Your task to perform on an android device: Set the phone to "Do not disturb". Image 0: 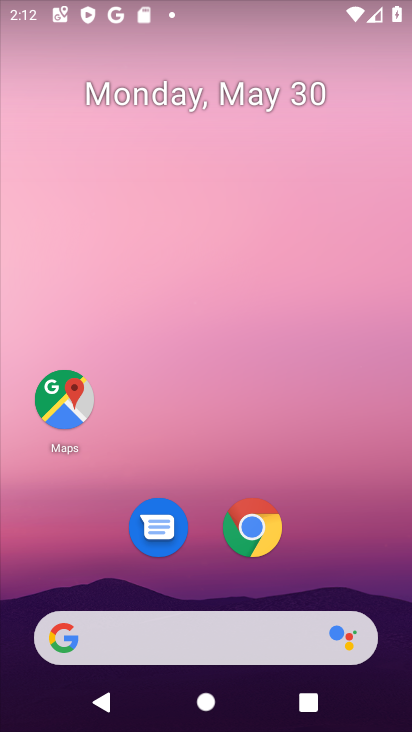
Step 0: drag from (248, 691) to (178, 58)
Your task to perform on an android device: Set the phone to "Do not disturb". Image 1: 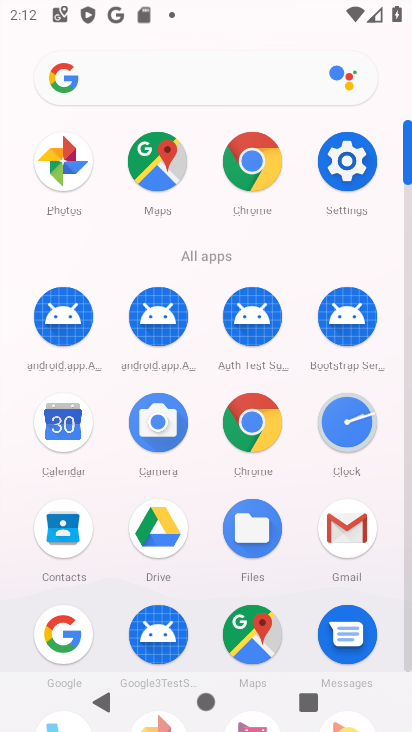
Step 1: click (345, 155)
Your task to perform on an android device: Set the phone to "Do not disturb". Image 2: 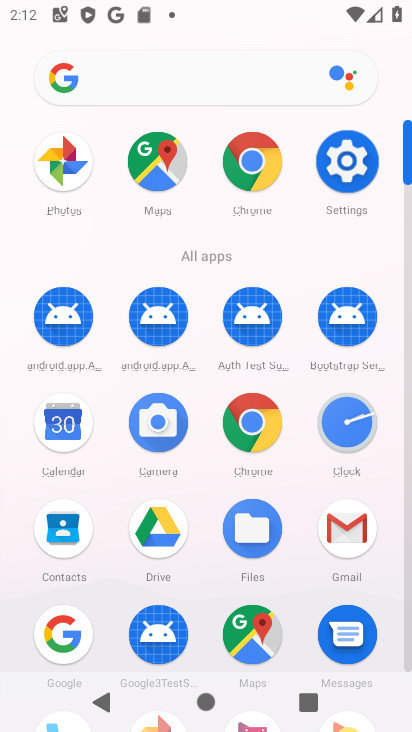
Step 2: click (345, 155)
Your task to perform on an android device: Set the phone to "Do not disturb". Image 3: 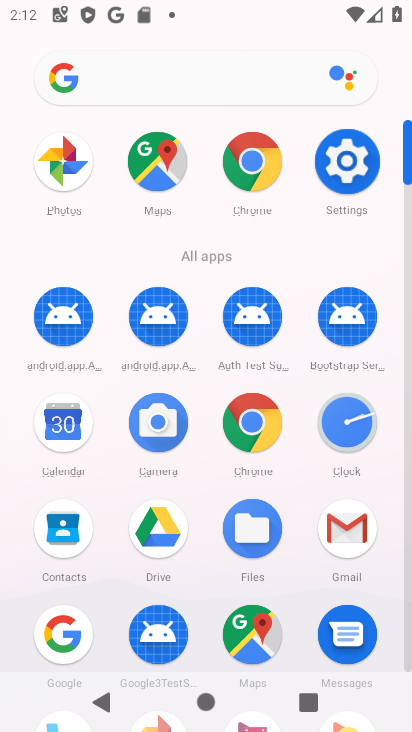
Step 3: click (345, 155)
Your task to perform on an android device: Set the phone to "Do not disturb". Image 4: 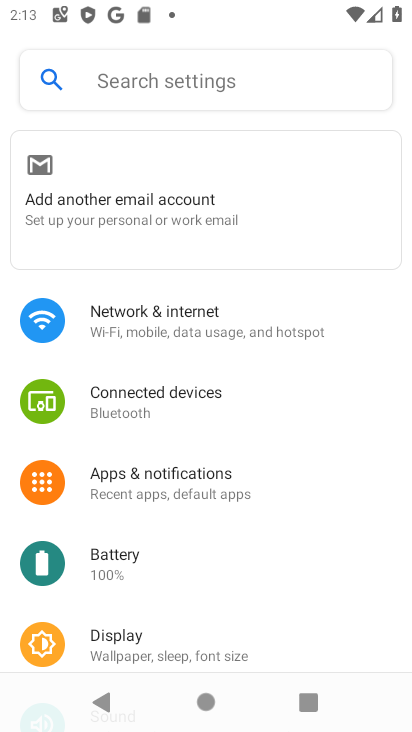
Step 4: drag from (143, 550) to (143, 210)
Your task to perform on an android device: Set the phone to "Do not disturb". Image 5: 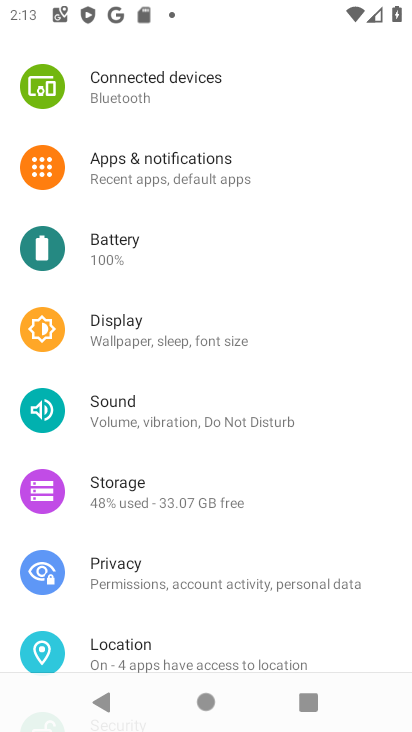
Step 5: drag from (224, 450) to (219, 285)
Your task to perform on an android device: Set the phone to "Do not disturb". Image 6: 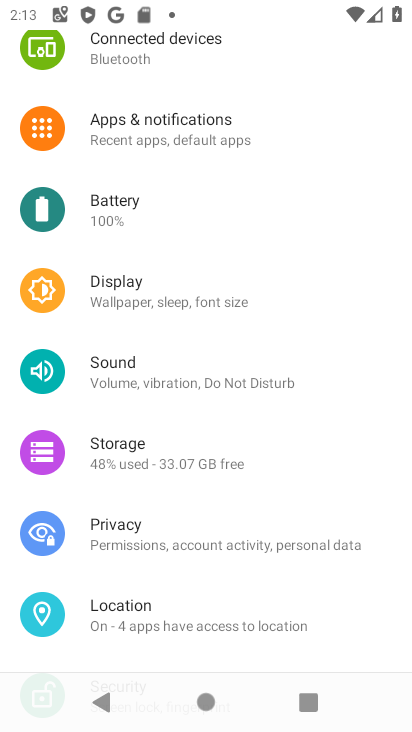
Step 6: click (112, 364)
Your task to perform on an android device: Set the phone to "Do not disturb". Image 7: 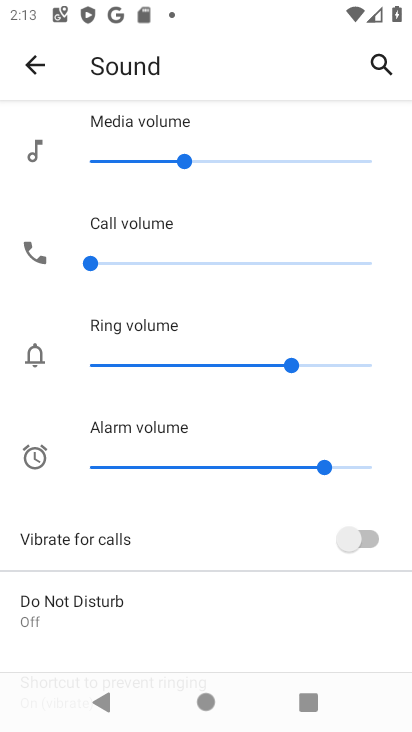
Step 7: click (59, 606)
Your task to perform on an android device: Set the phone to "Do not disturb". Image 8: 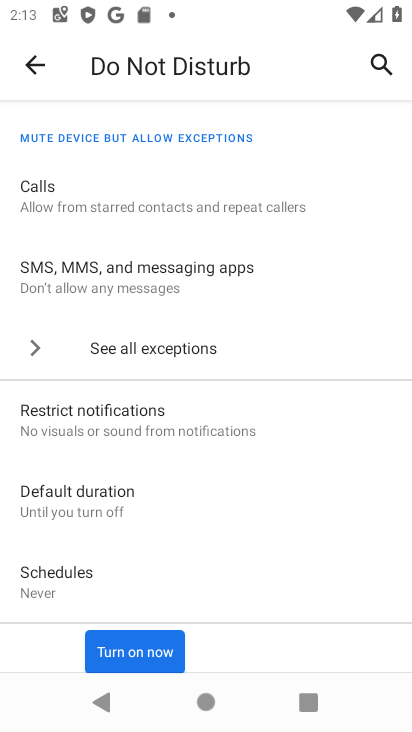
Step 8: click (125, 653)
Your task to perform on an android device: Set the phone to "Do not disturb". Image 9: 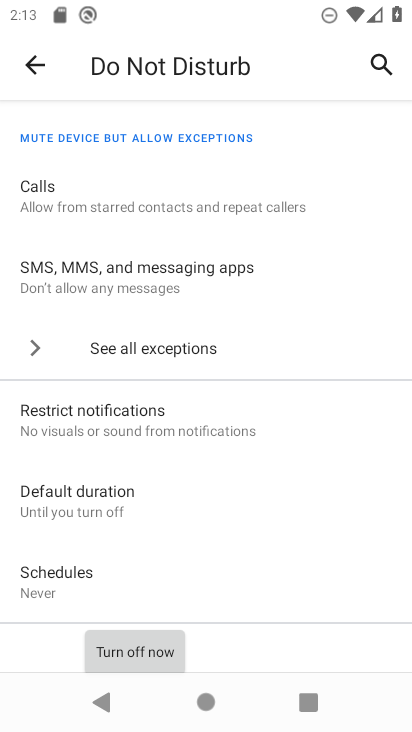
Step 9: task complete